Your task to perform on an android device: check battery use Image 0: 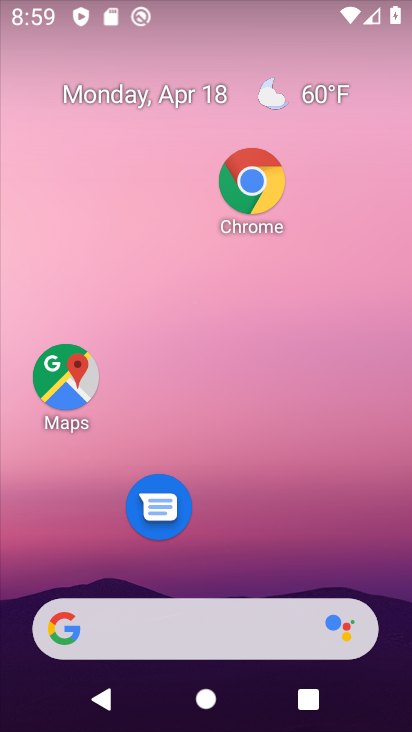
Step 0: drag from (238, 567) to (201, 94)
Your task to perform on an android device: check battery use Image 1: 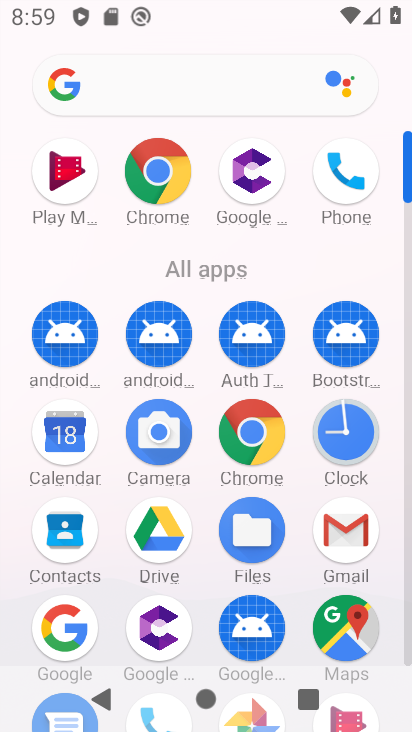
Step 1: drag from (201, 573) to (150, 80)
Your task to perform on an android device: check battery use Image 2: 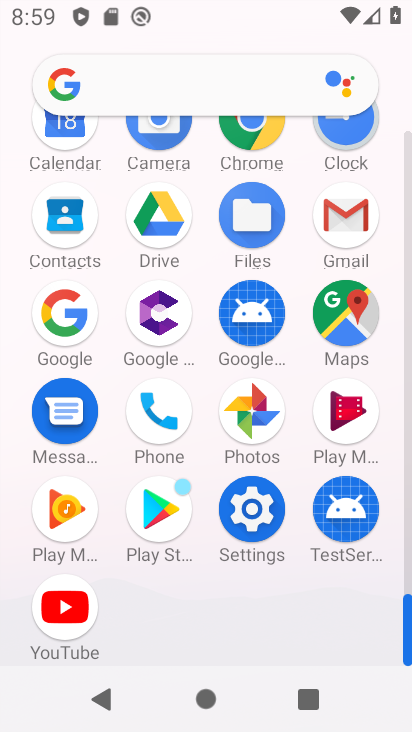
Step 2: click (253, 513)
Your task to perform on an android device: check battery use Image 3: 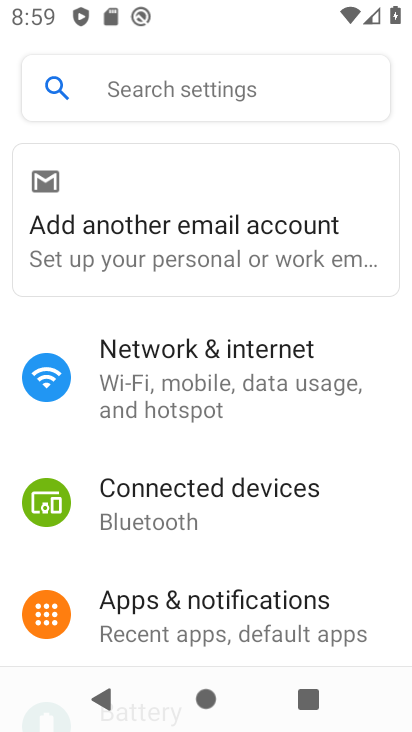
Step 3: drag from (211, 495) to (189, 135)
Your task to perform on an android device: check battery use Image 4: 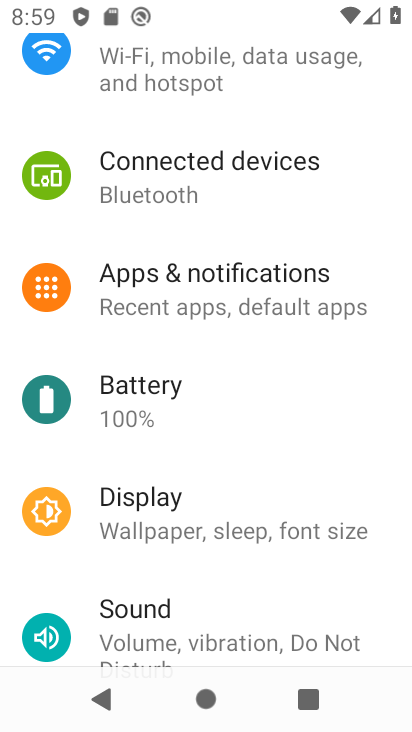
Step 4: click (152, 395)
Your task to perform on an android device: check battery use Image 5: 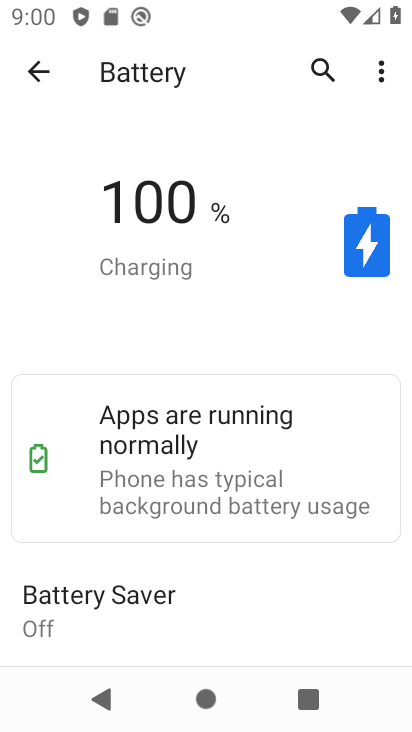
Step 5: click (375, 72)
Your task to perform on an android device: check battery use Image 6: 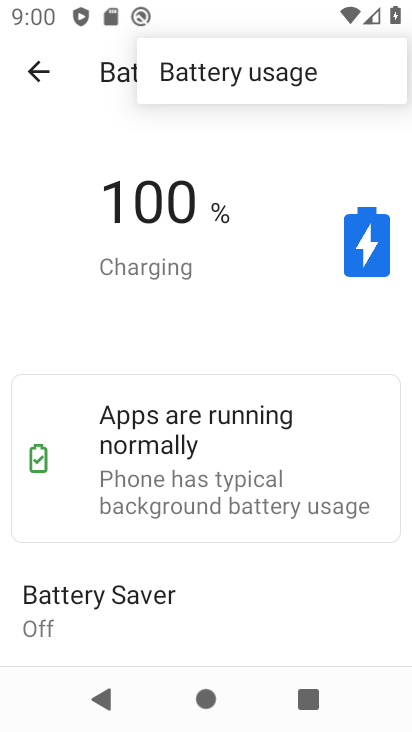
Step 6: click (301, 77)
Your task to perform on an android device: check battery use Image 7: 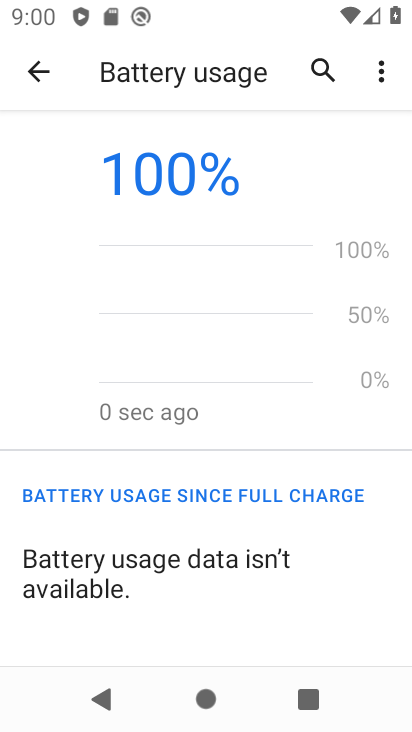
Step 7: task complete